Your task to perform on an android device: snooze an email in the gmail app Image 0: 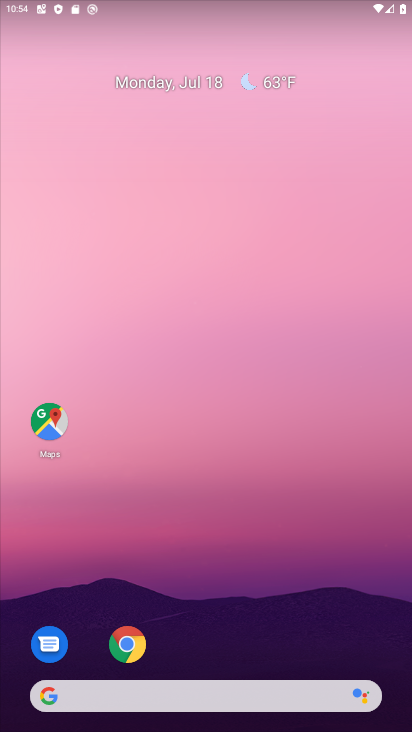
Step 0: drag from (250, 609) to (250, 34)
Your task to perform on an android device: snooze an email in the gmail app Image 1: 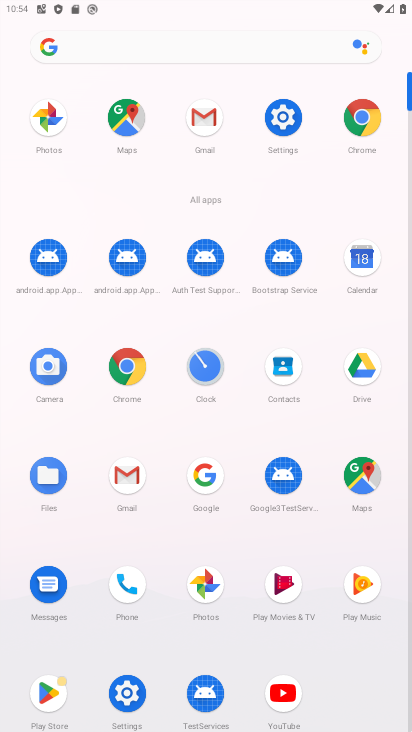
Step 1: click (205, 122)
Your task to perform on an android device: snooze an email in the gmail app Image 2: 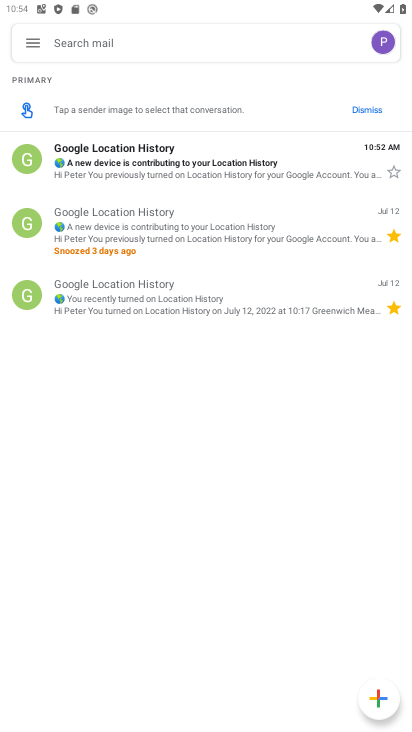
Step 2: click (28, 38)
Your task to perform on an android device: snooze an email in the gmail app Image 3: 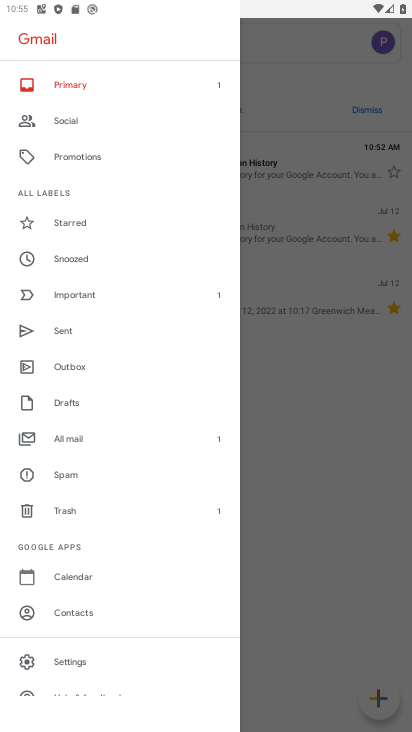
Step 3: click (112, 430)
Your task to perform on an android device: snooze an email in the gmail app Image 4: 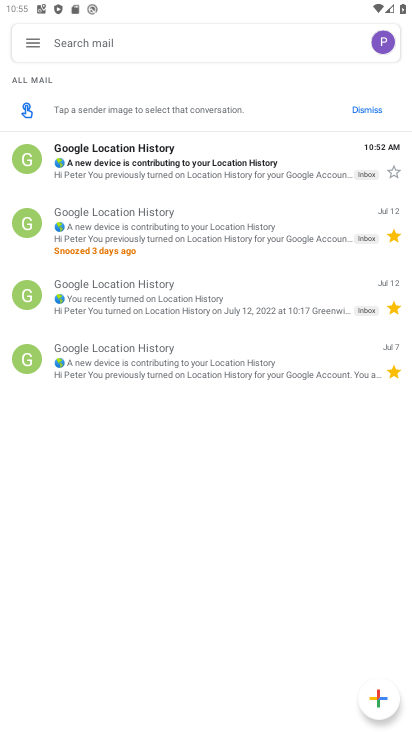
Step 4: click (210, 163)
Your task to perform on an android device: snooze an email in the gmail app Image 5: 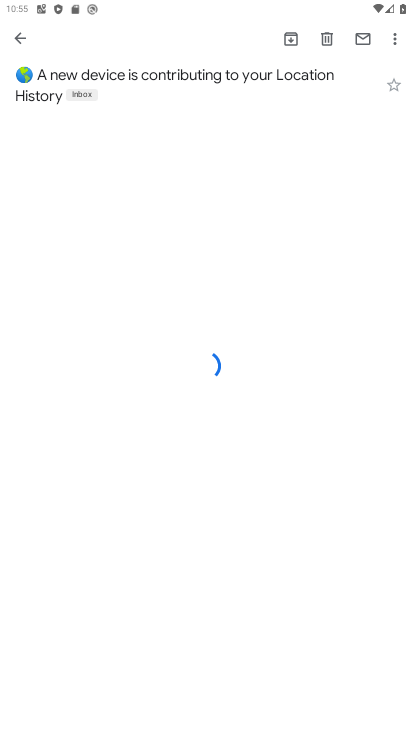
Step 5: click (388, 46)
Your task to perform on an android device: snooze an email in the gmail app Image 6: 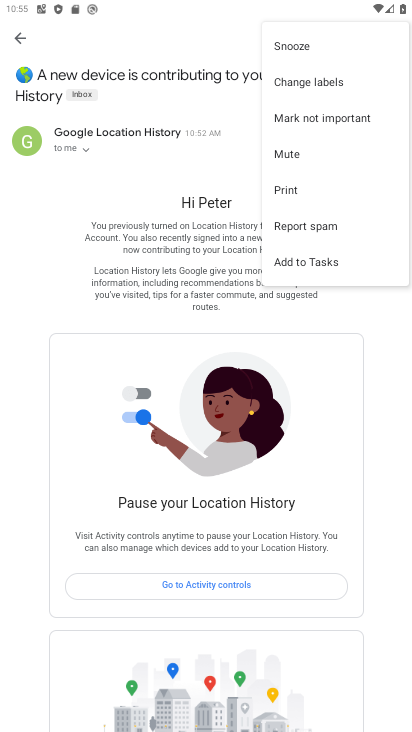
Step 6: click (319, 48)
Your task to perform on an android device: snooze an email in the gmail app Image 7: 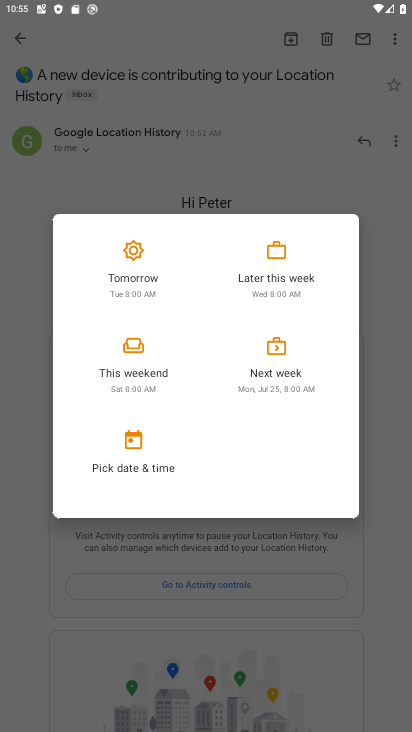
Step 7: click (151, 268)
Your task to perform on an android device: snooze an email in the gmail app Image 8: 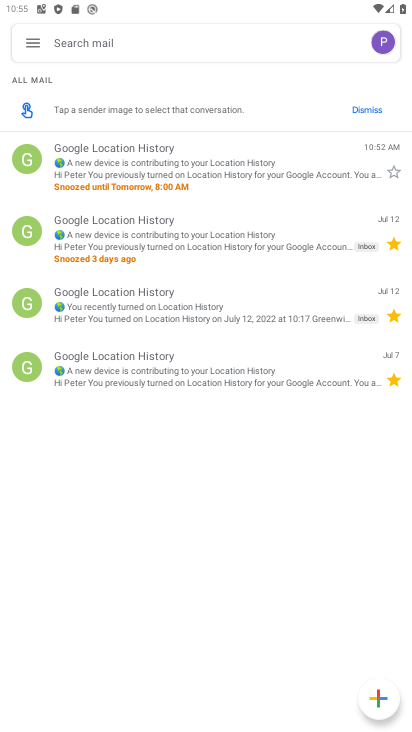
Step 8: task complete